Your task to perform on an android device: Open the phone app and click the voicemail tab. Image 0: 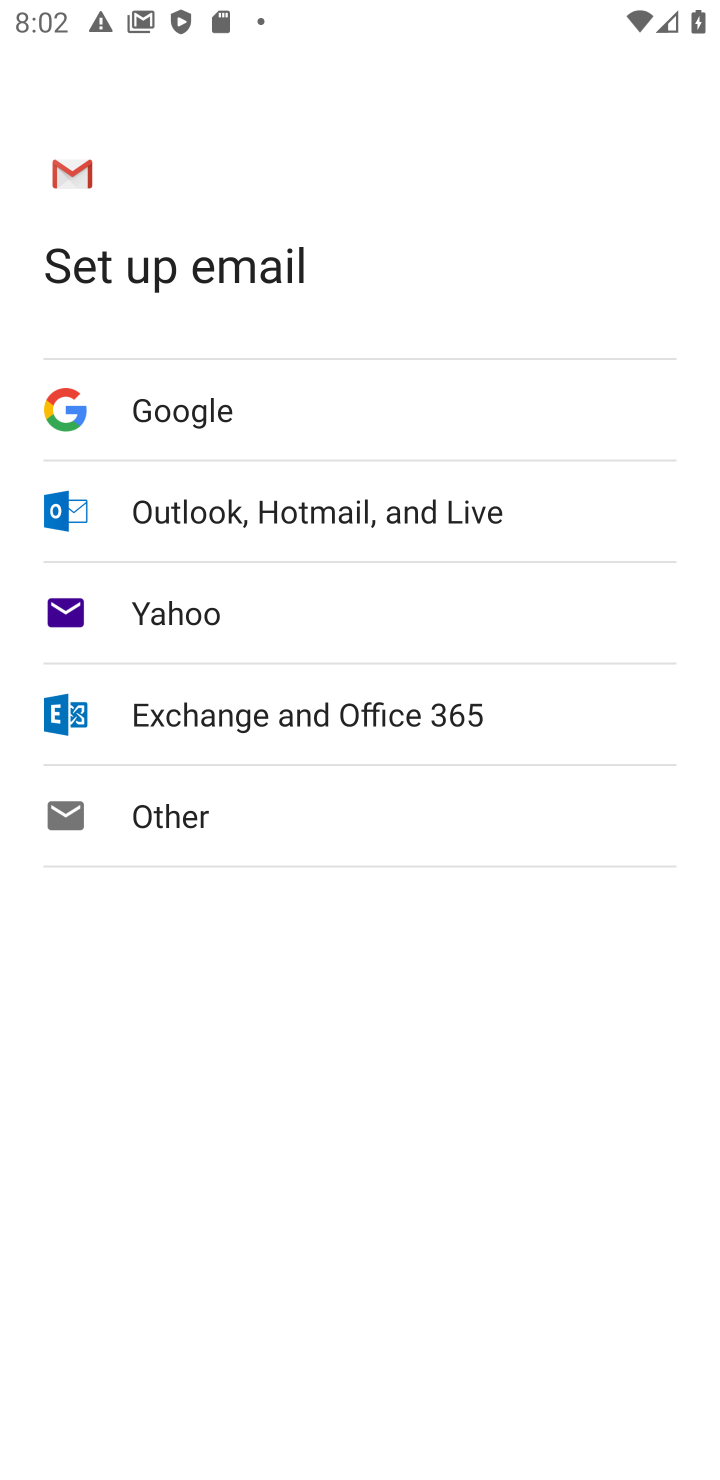
Step 0: press home button
Your task to perform on an android device: Open the phone app and click the voicemail tab. Image 1: 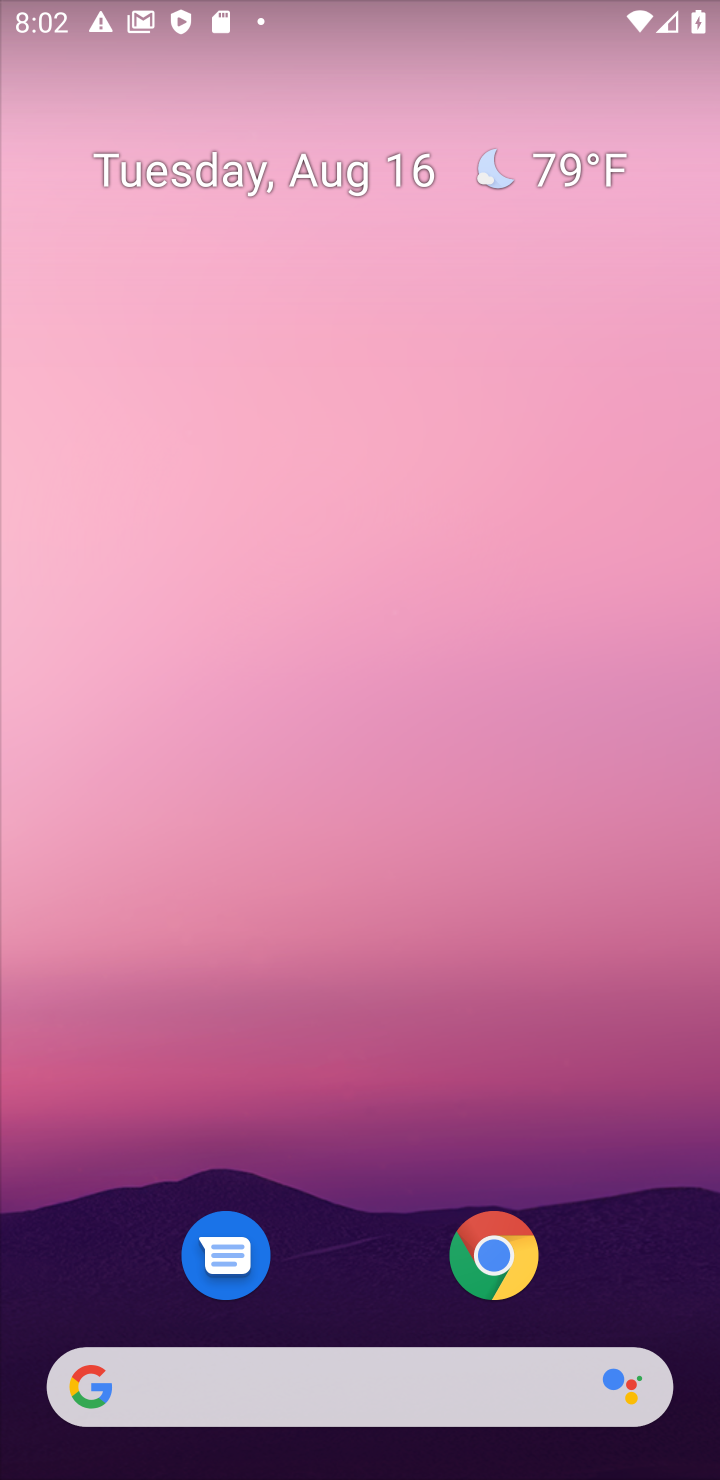
Step 1: drag from (345, 1409) to (354, 377)
Your task to perform on an android device: Open the phone app and click the voicemail tab. Image 2: 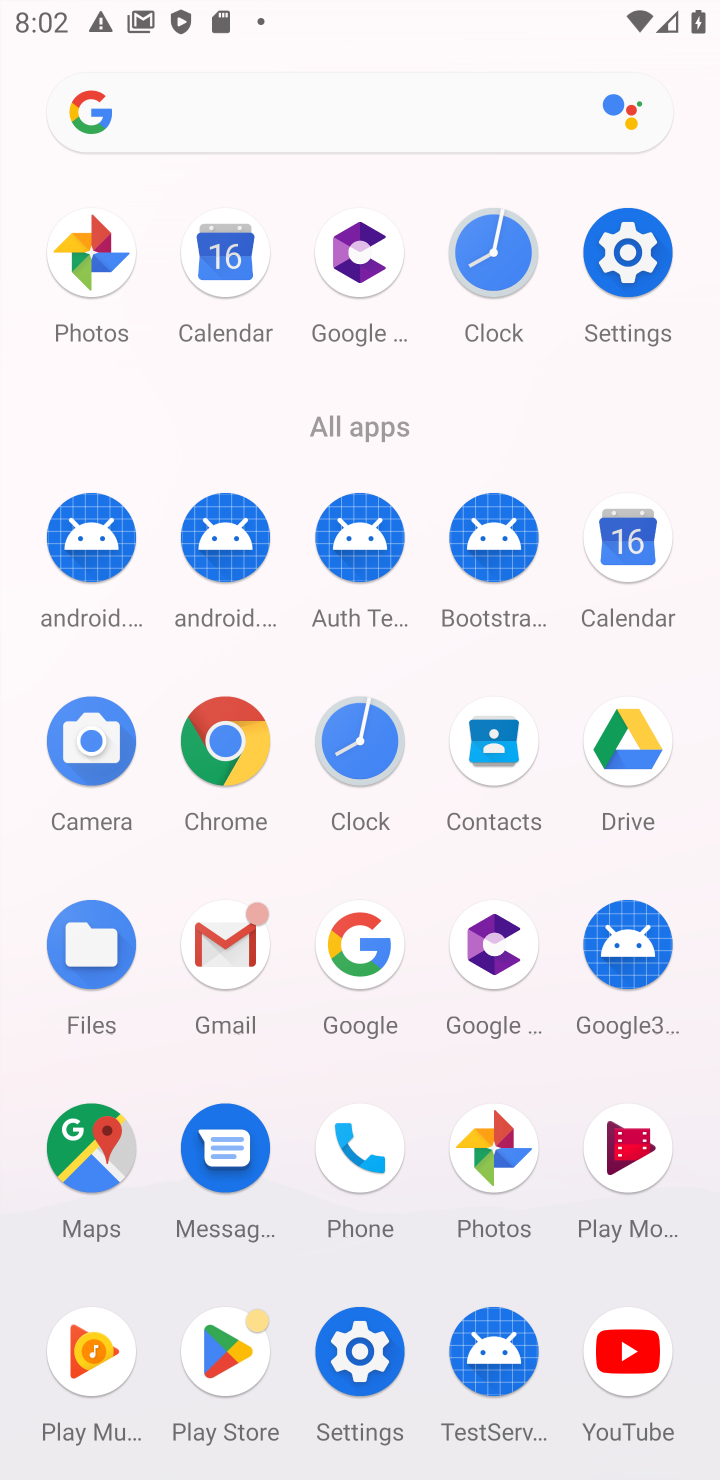
Step 2: click (341, 1150)
Your task to perform on an android device: Open the phone app and click the voicemail tab. Image 3: 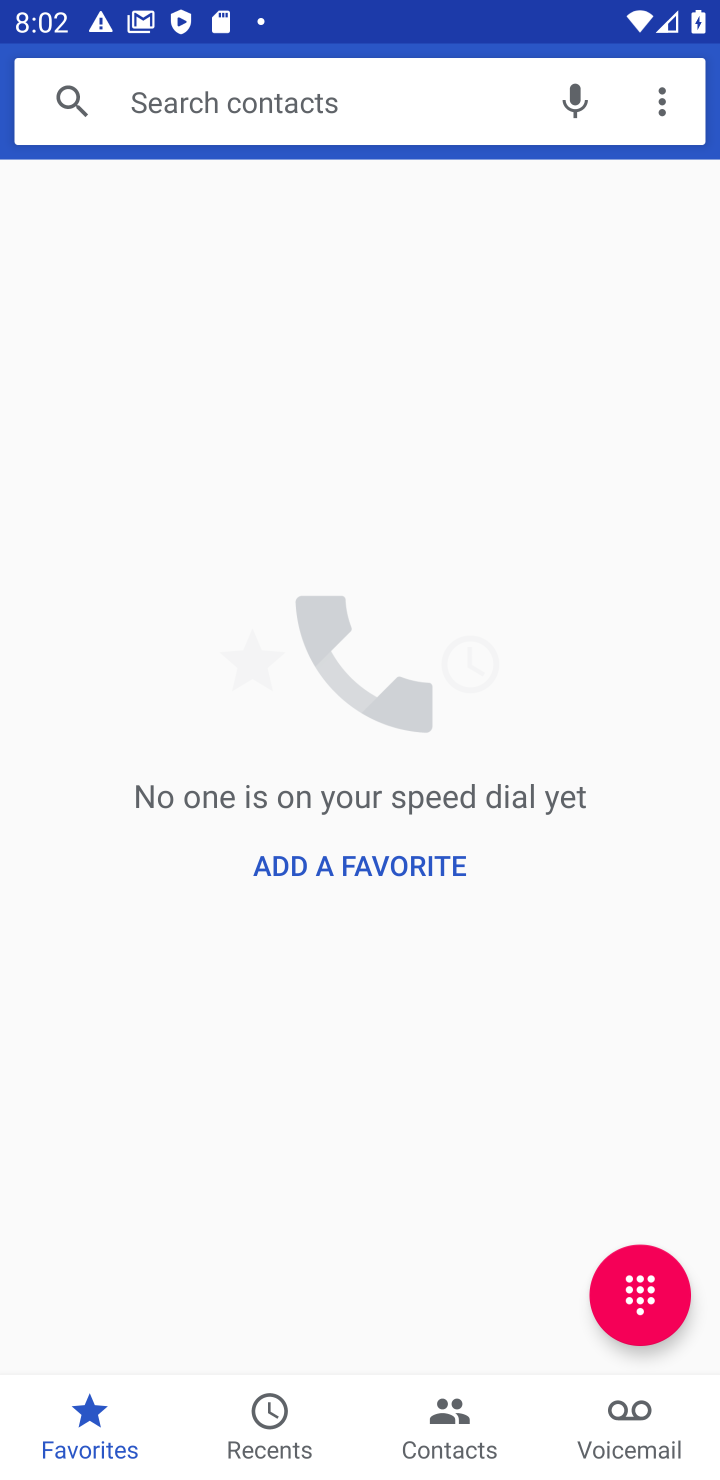
Step 3: click (652, 1428)
Your task to perform on an android device: Open the phone app and click the voicemail tab. Image 4: 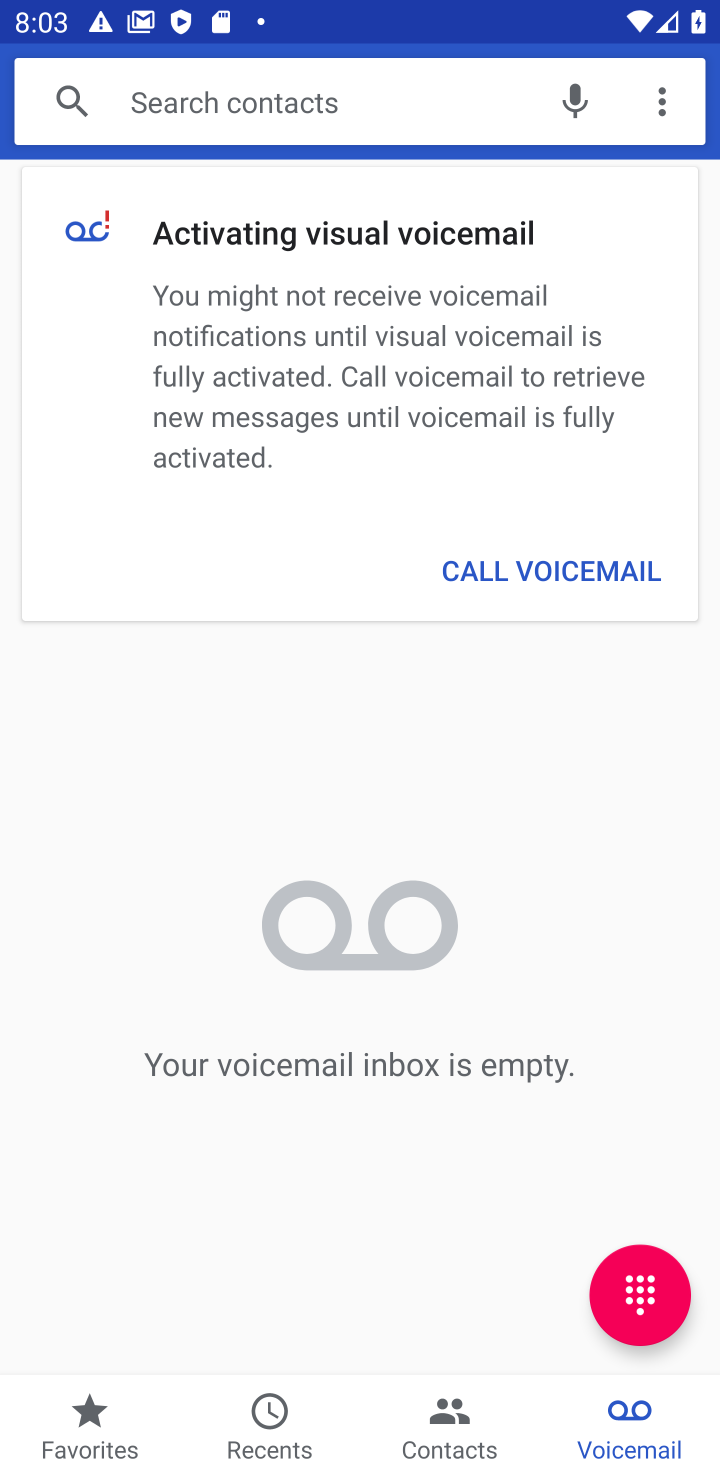
Step 4: task complete